Your task to perform on an android device: check out phone information Image 0: 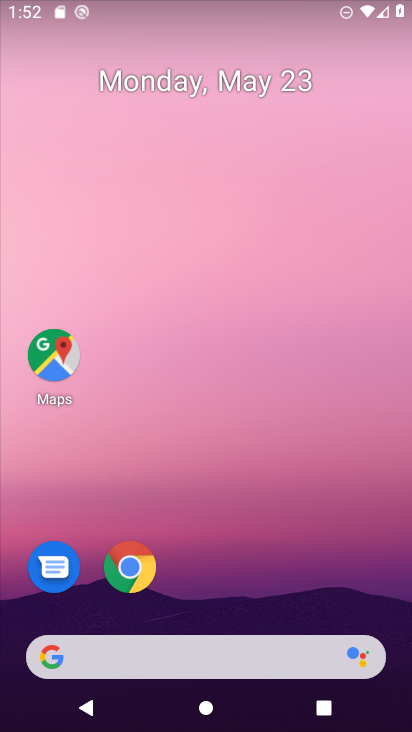
Step 0: drag from (308, 326) to (308, 21)
Your task to perform on an android device: check out phone information Image 1: 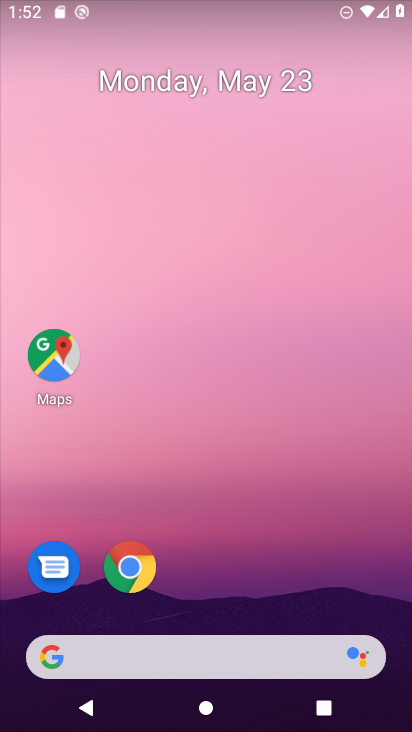
Step 1: drag from (292, 559) to (263, 0)
Your task to perform on an android device: check out phone information Image 2: 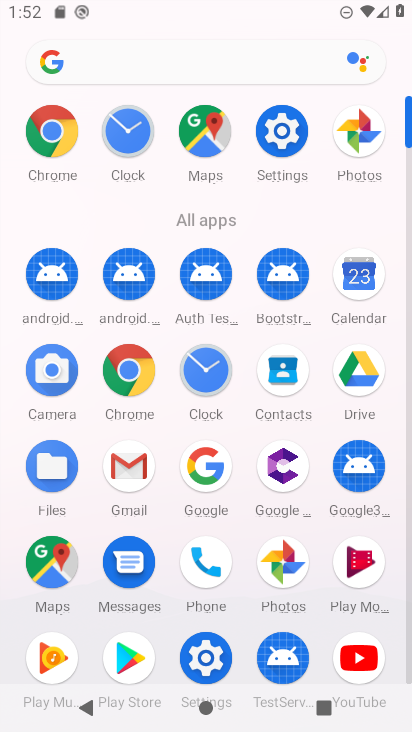
Step 2: click (207, 567)
Your task to perform on an android device: check out phone information Image 3: 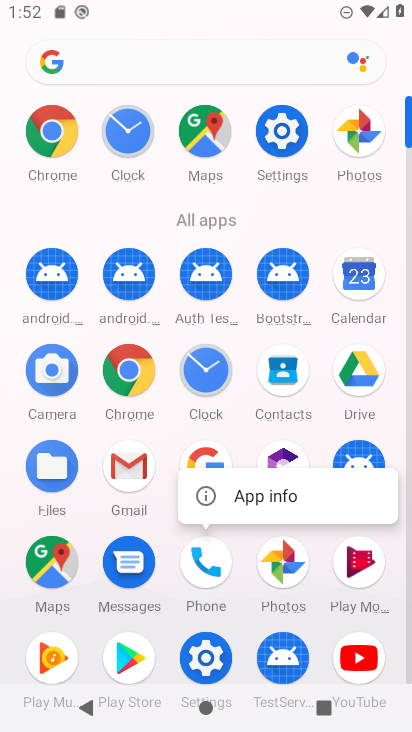
Step 3: click (239, 500)
Your task to perform on an android device: check out phone information Image 4: 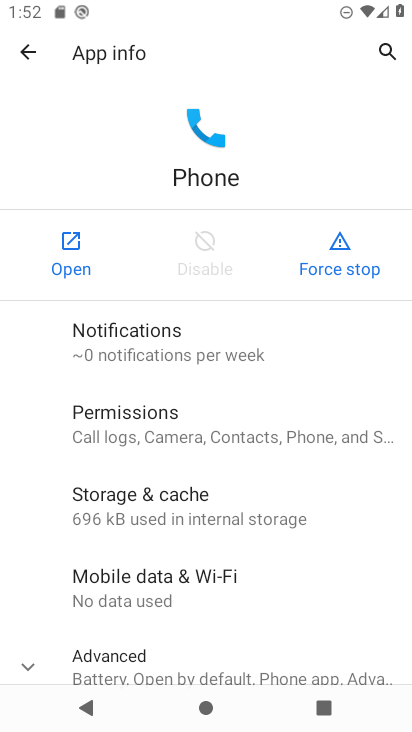
Step 4: task complete